Your task to perform on an android device: open app "Airtel Thanks" Image 0: 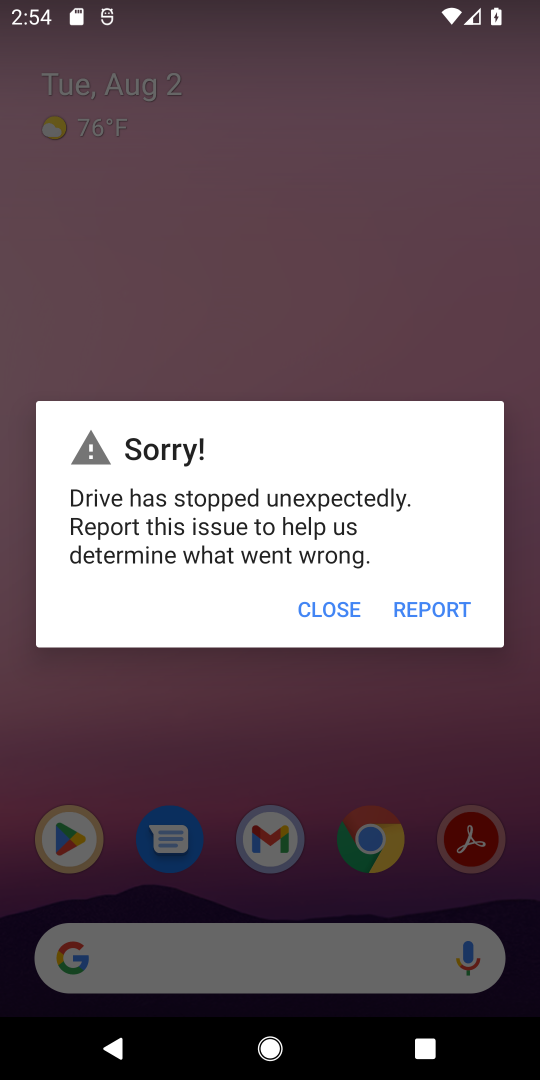
Step 0: click (319, 600)
Your task to perform on an android device: open app "Airtel Thanks" Image 1: 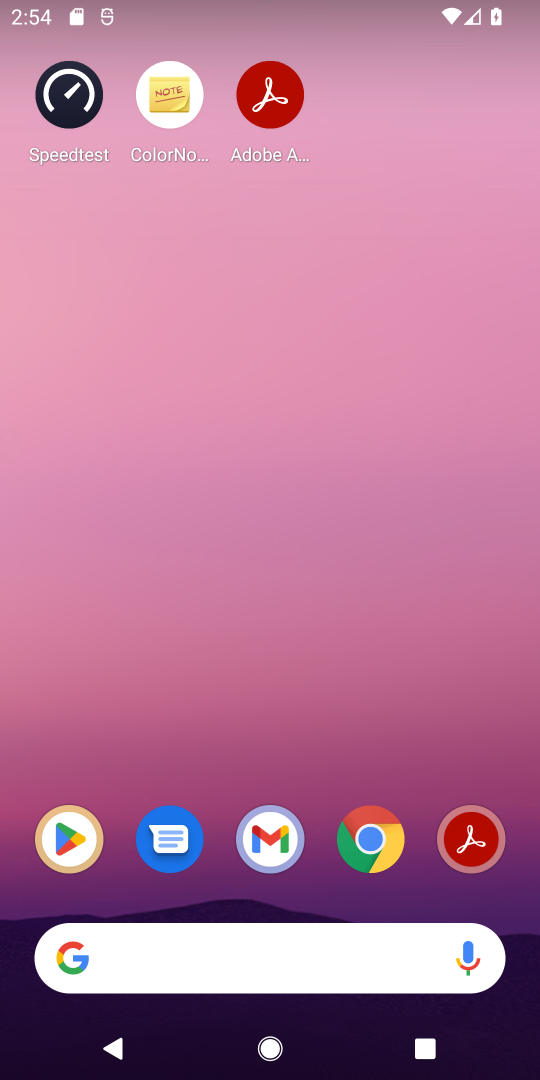
Step 1: click (87, 825)
Your task to perform on an android device: open app "Airtel Thanks" Image 2: 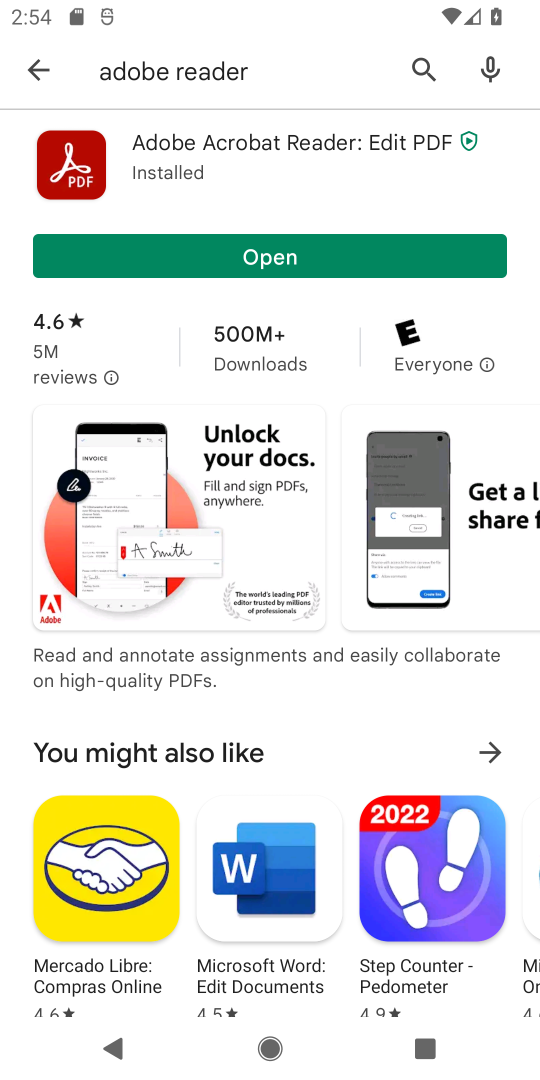
Step 2: click (415, 96)
Your task to perform on an android device: open app "Airtel Thanks" Image 3: 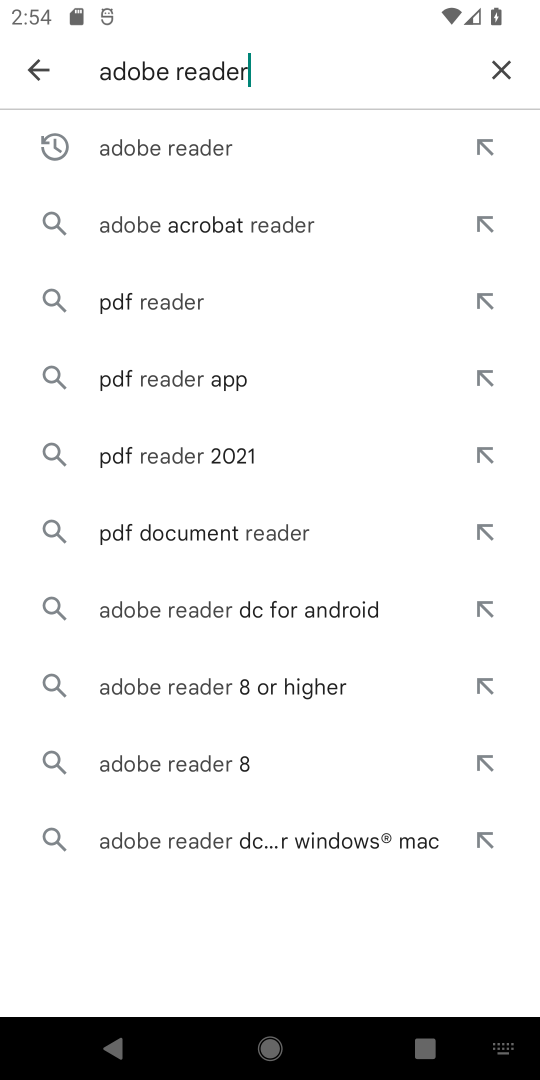
Step 3: click (505, 90)
Your task to perform on an android device: open app "Airtel Thanks" Image 4: 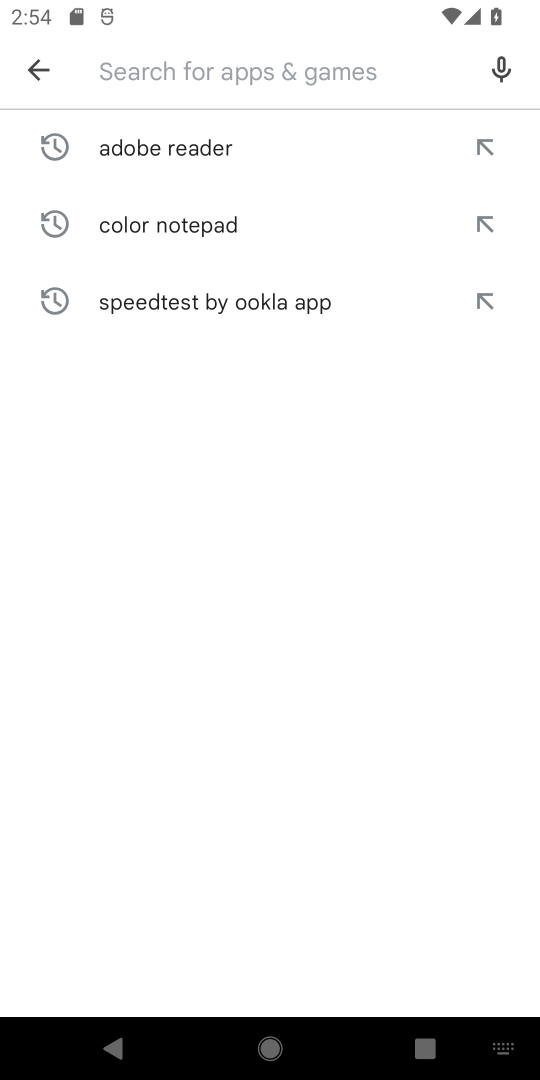
Step 4: type "airtel"
Your task to perform on an android device: open app "Airtel Thanks" Image 5: 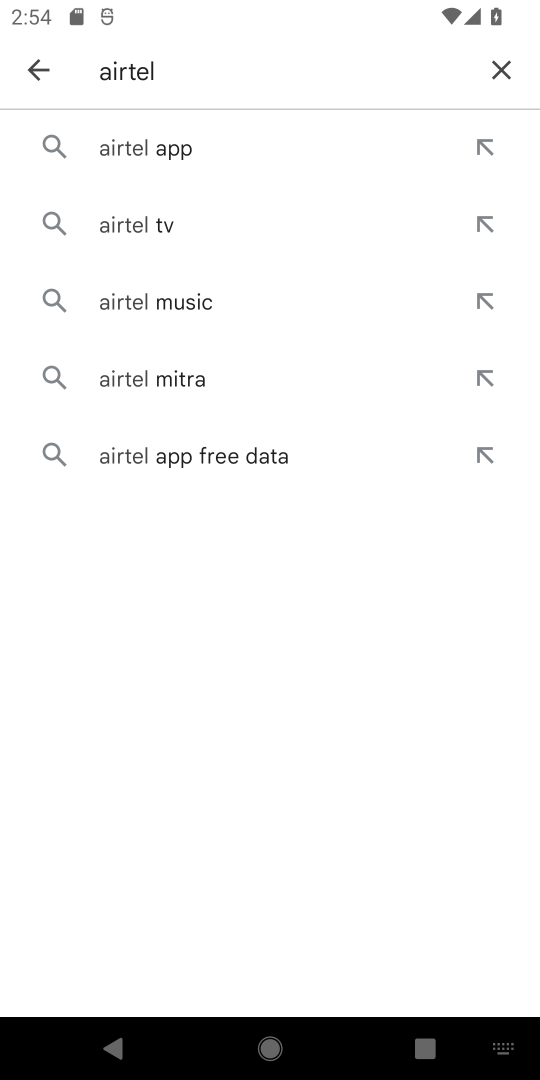
Step 5: click (200, 142)
Your task to perform on an android device: open app "Airtel Thanks" Image 6: 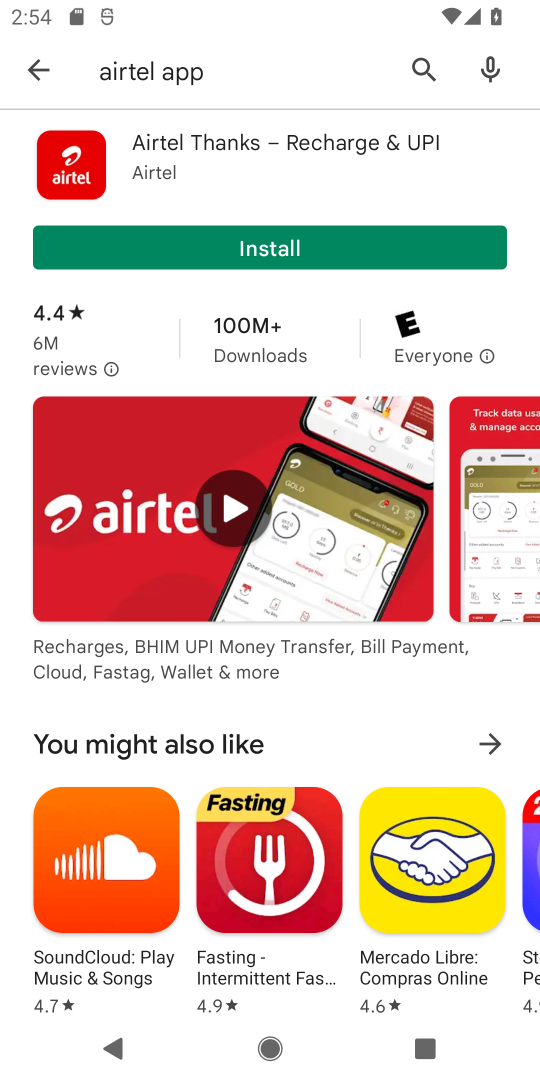
Step 6: click (301, 244)
Your task to perform on an android device: open app "Airtel Thanks" Image 7: 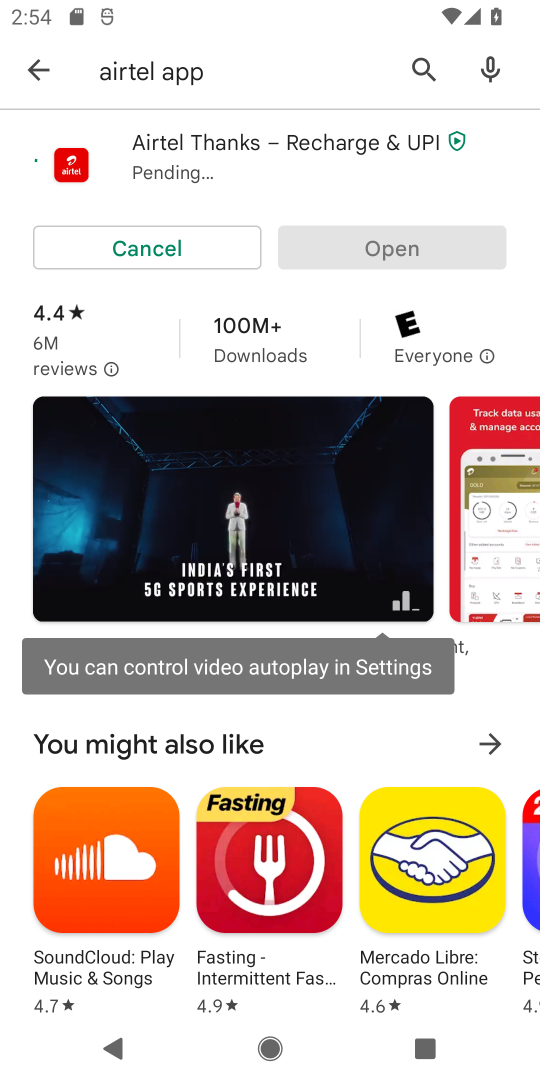
Step 7: task complete